Your task to perform on an android device: Open calendar and show me the fourth week of next month Image 0: 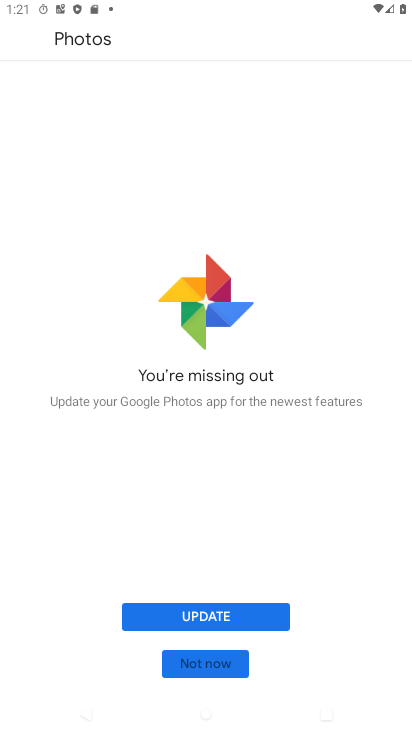
Step 0: press home button
Your task to perform on an android device: Open calendar and show me the fourth week of next month Image 1: 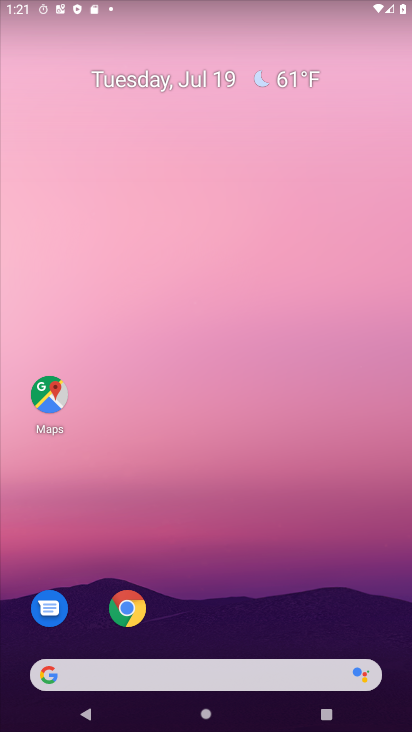
Step 1: drag from (275, 561) to (251, 67)
Your task to perform on an android device: Open calendar and show me the fourth week of next month Image 2: 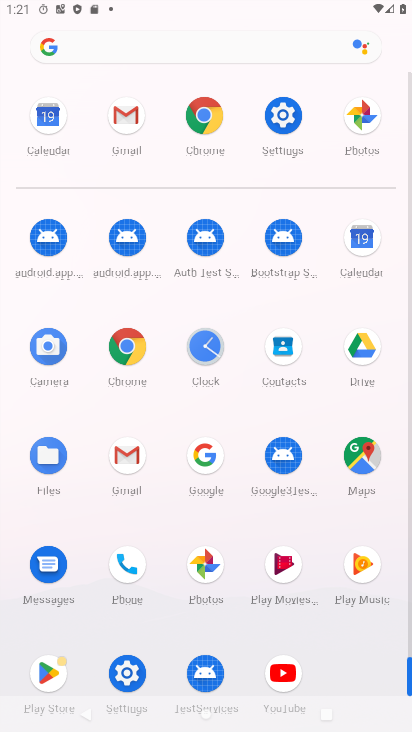
Step 2: click (369, 248)
Your task to perform on an android device: Open calendar and show me the fourth week of next month Image 3: 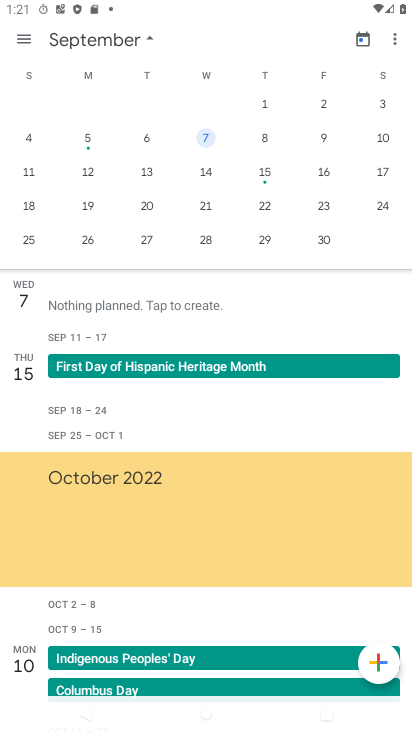
Step 3: drag from (285, 191) to (2, 204)
Your task to perform on an android device: Open calendar and show me the fourth week of next month Image 4: 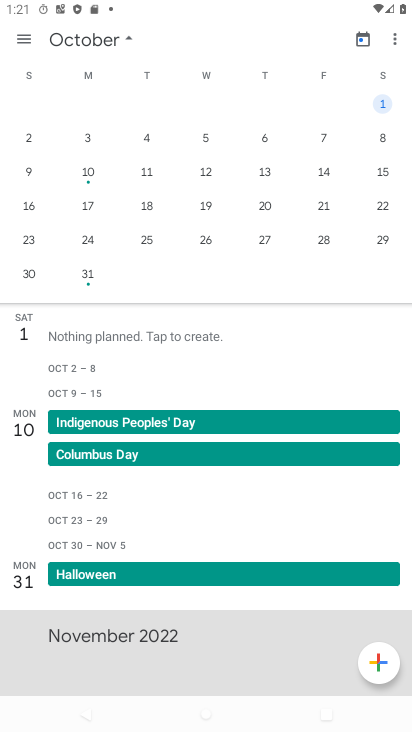
Step 4: click (317, 244)
Your task to perform on an android device: Open calendar and show me the fourth week of next month Image 5: 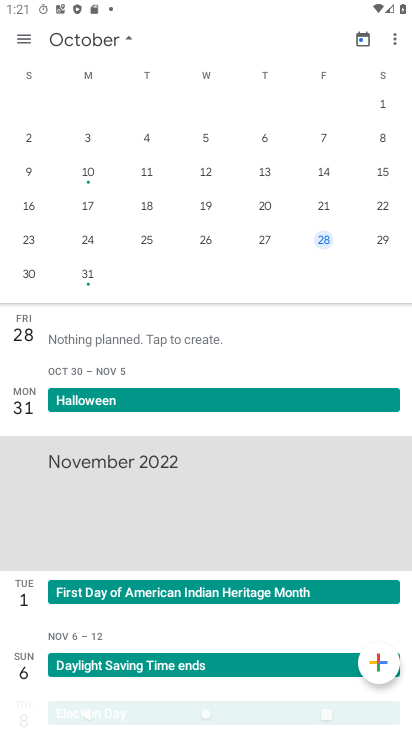
Step 5: task complete